Your task to perform on an android device: Open calendar and show me the first week of next month Image 0: 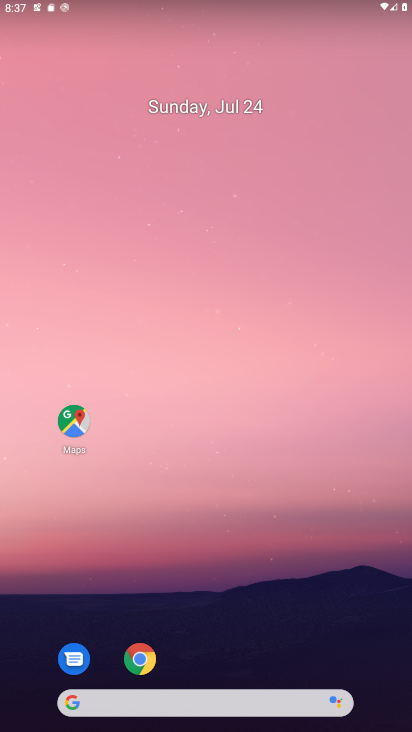
Step 0: drag from (244, 722) to (244, 217)
Your task to perform on an android device: Open calendar and show me the first week of next month Image 1: 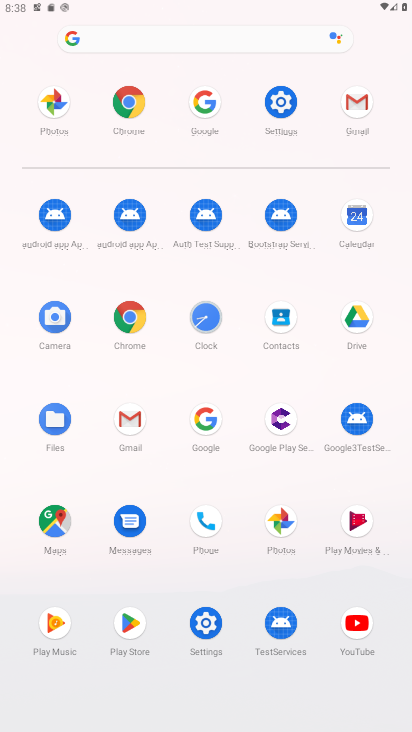
Step 1: click (355, 217)
Your task to perform on an android device: Open calendar and show me the first week of next month Image 2: 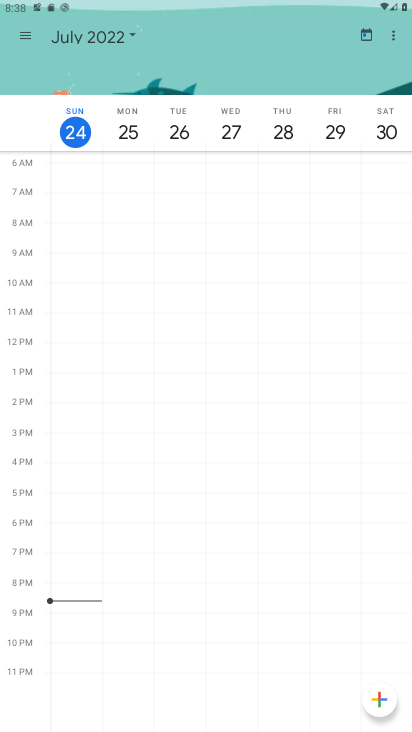
Step 2: click (133, 33)
Your task to perform on an android device: Open calendar and show me the first week of next month Image 3: 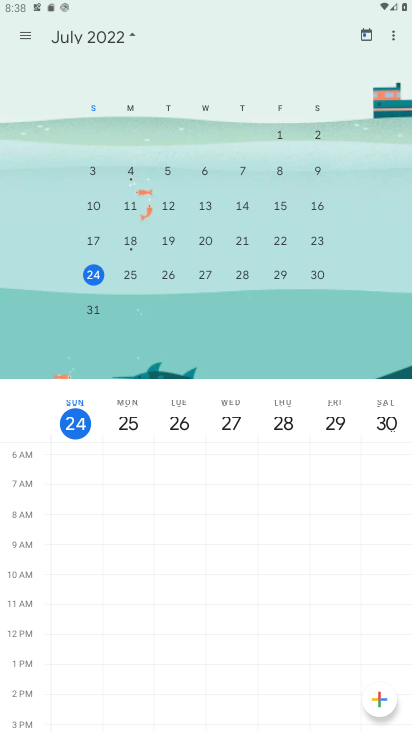
Step 3: drag from (290, 256) to (37, 256)
Your task to perform on an android device: Open calendar and show me the first week of next month Image 4: 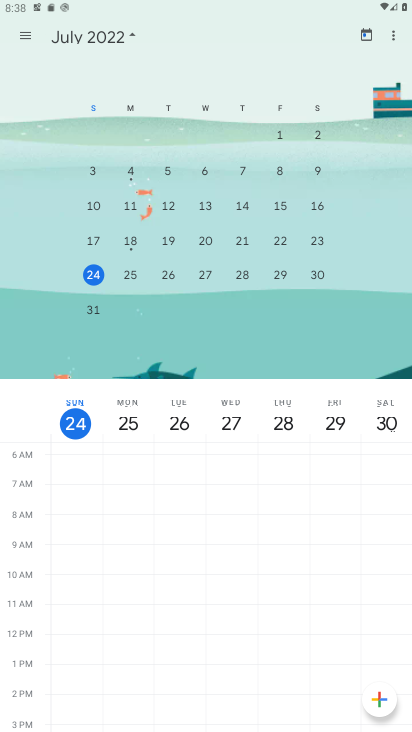
Step 4: drag from (316, 257) to (40, 258)
Your task to perform on an android device: Open calendar and show me the first week of next month Image 5: 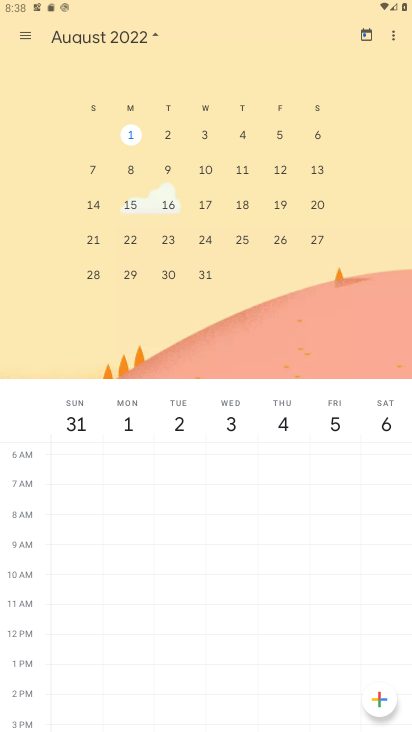
Step 5: click (22, 34)
Your task to perform on an android device: Open calendar and show me the first week of next month Image 6: 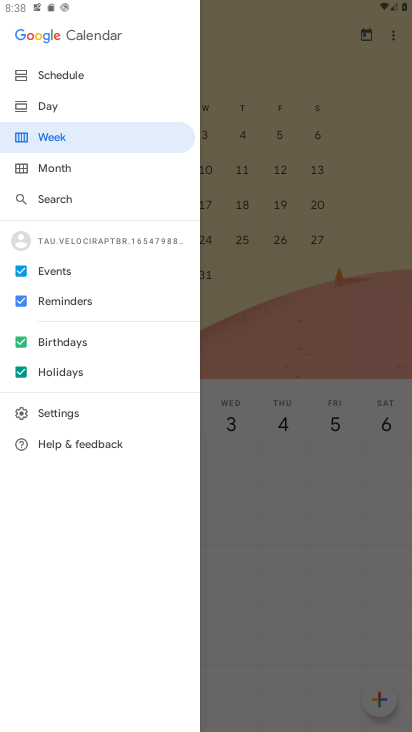
Step 6: click (39, 133)
Your task to perform on an android device: Open calendar and show me the first week of next month Image 7: 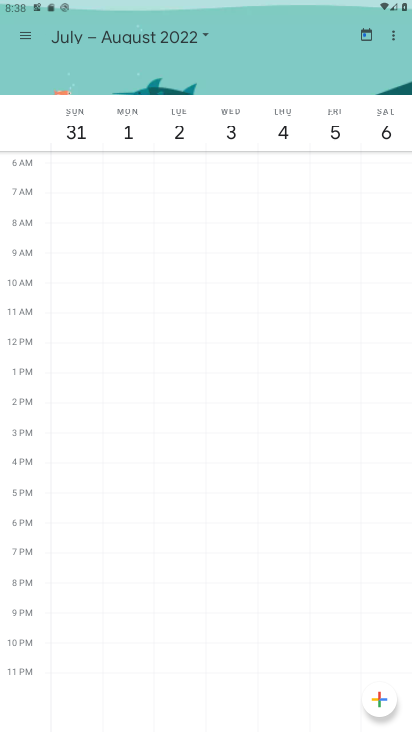
Step 7: task complete